Your task to perform on an android device: remove spam from my inbox in the gmail app Image 0: 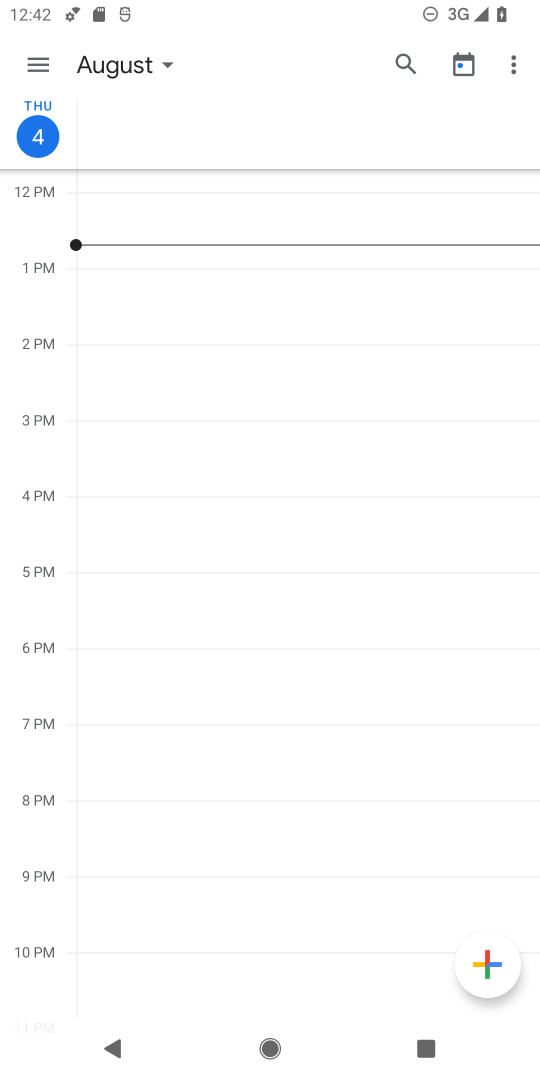
Step 0: press home button
Your task to perform on an android device: remove spam from my inbox in the gmail app Image 1: 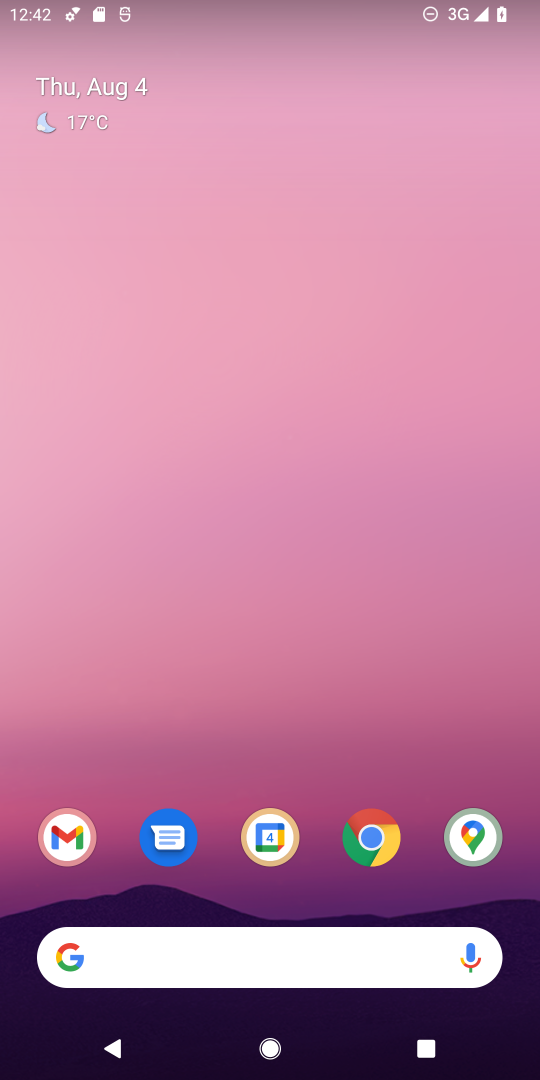
Step 1: drag from (445, 905) to (300, 140)
Your task to perform on an android device: remove spam from my inbox in the gmail app Image 2: 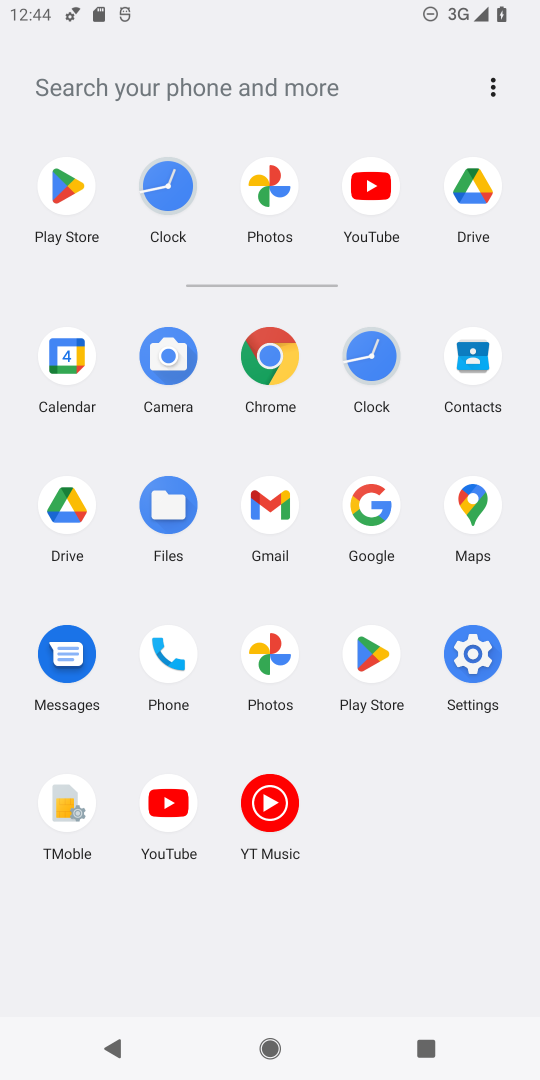
Step 2: click (259, 518)
Your task to perform on an android device: remove spam from my inbox in the gmail app Image 3: 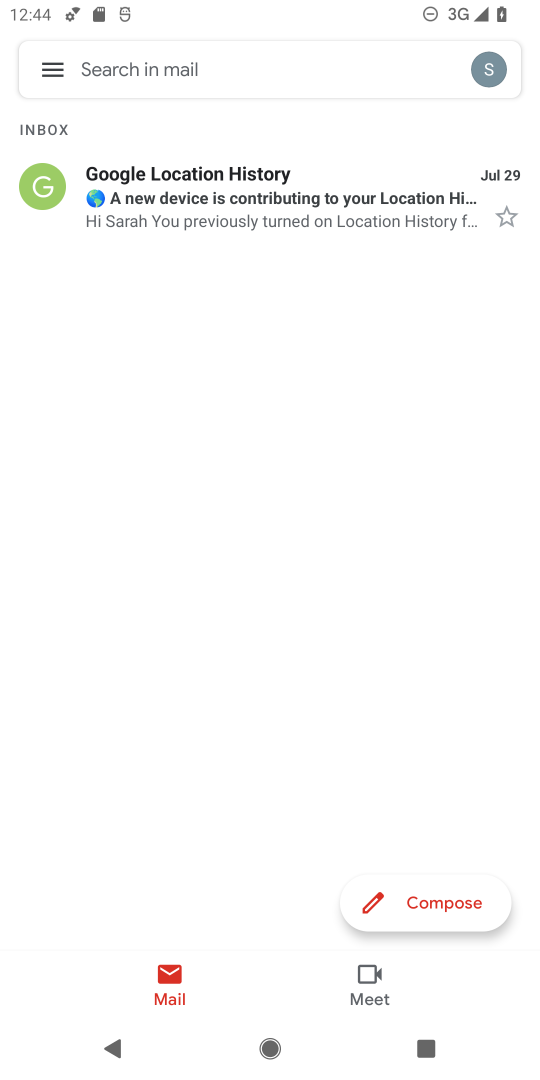
Step 3: task complete